Your task to perform on an android device: Open Google Chrome Image 0: 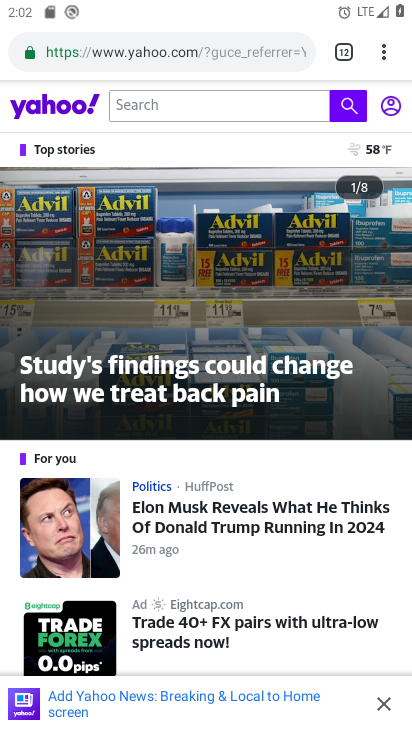
Step 0: press home button
Your task to perform on an android device: Open Google Chrome Image 1: 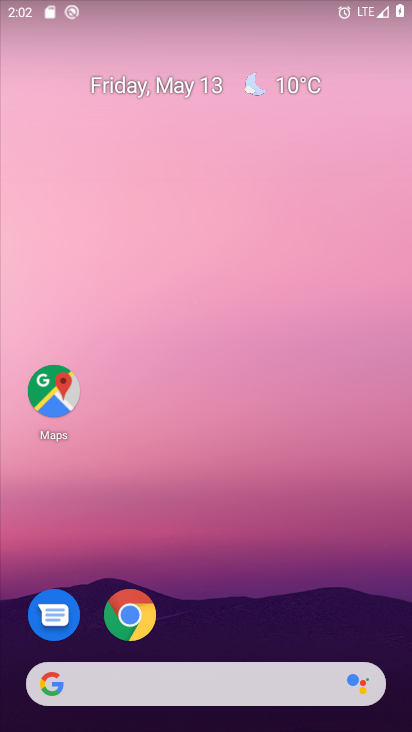
Step 1: click (126, 616)
Your task to perform on an android device: Open Google Chrome Image 2: 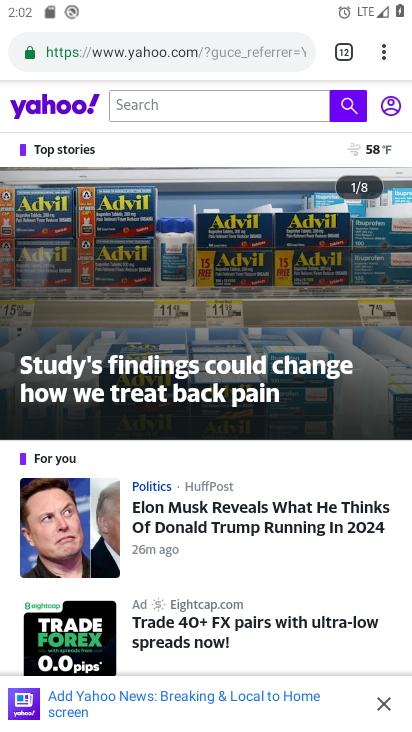
Step 2: click (382, 52)
Your task to perform on an android device: Open Google Chrome Image 3: 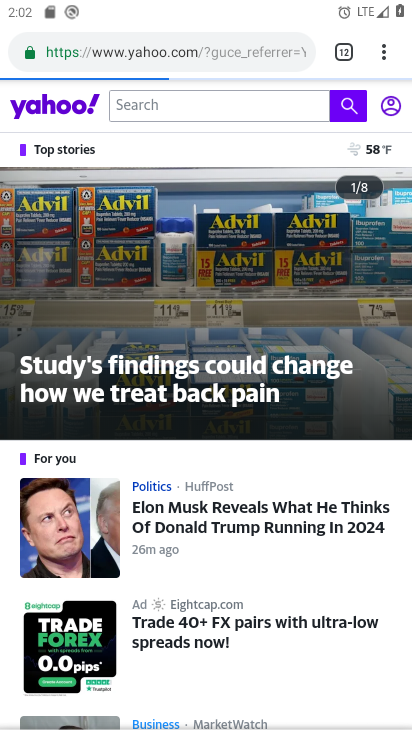
Step 3: task complete